Your task to perform on an android device: turn off sleep mode Image 0: 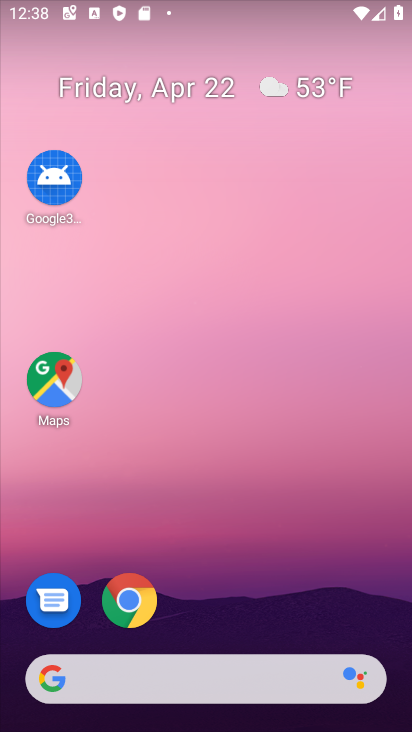
Step 0: drag from (199, 447) to (177, 51)
Your task to perform on an android device: turn off sleep mode Image 1: 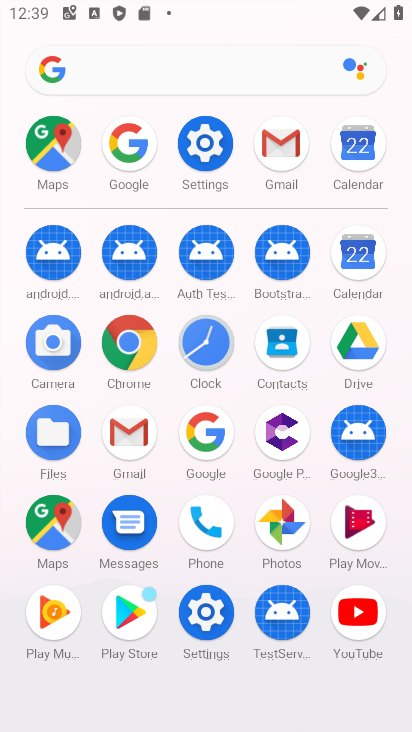
Step 1: click (203, 146)
Your task to perform on an android device: turn off sleep mode Image 2: 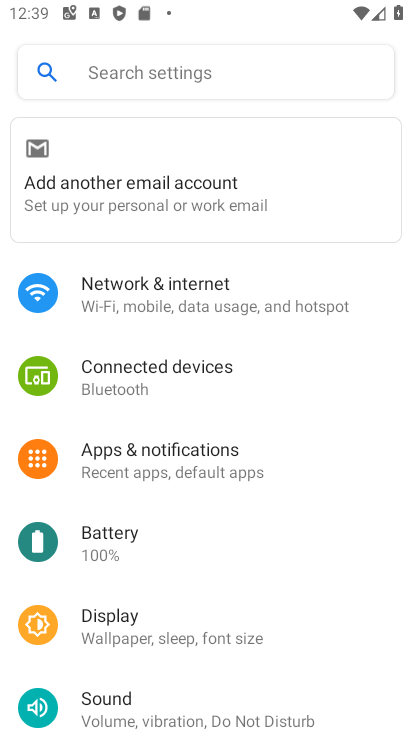
Step 2: click (129, 644)
Your task to perform on an android device: turn off sleep mode Image 3: 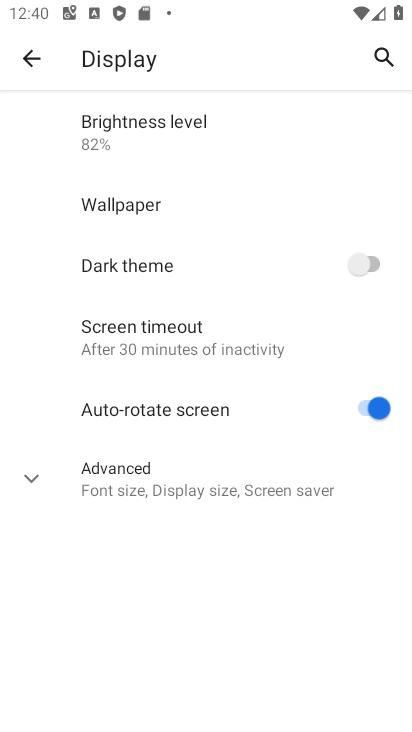
Step 3: task complete